Your task to perform on an android device: Go to internet settings Image 0: 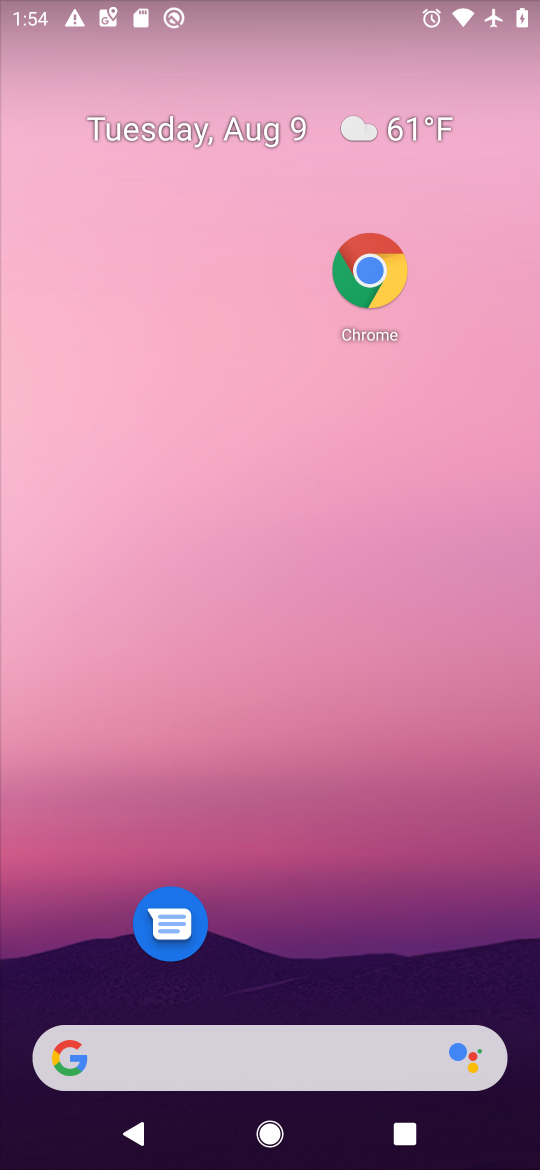
Step 0: drag from (399, 1005) to (322, 127)
Your task to perform on an android device: Go to internet settings Image 1: 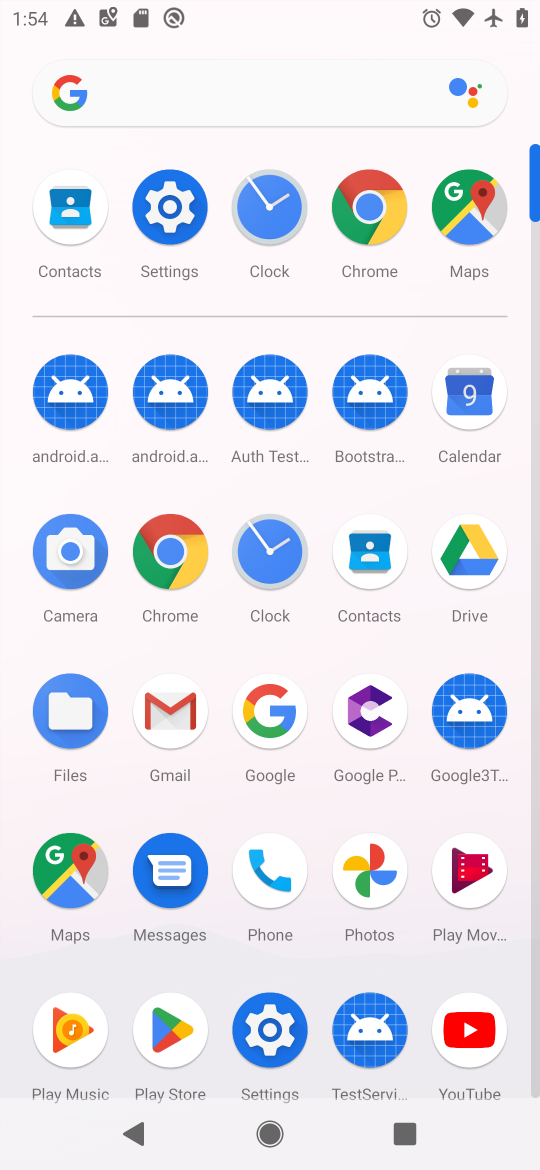
Step 1: click (144, 248)
Your task to perform on an android device: Go to internet settings Image 2: 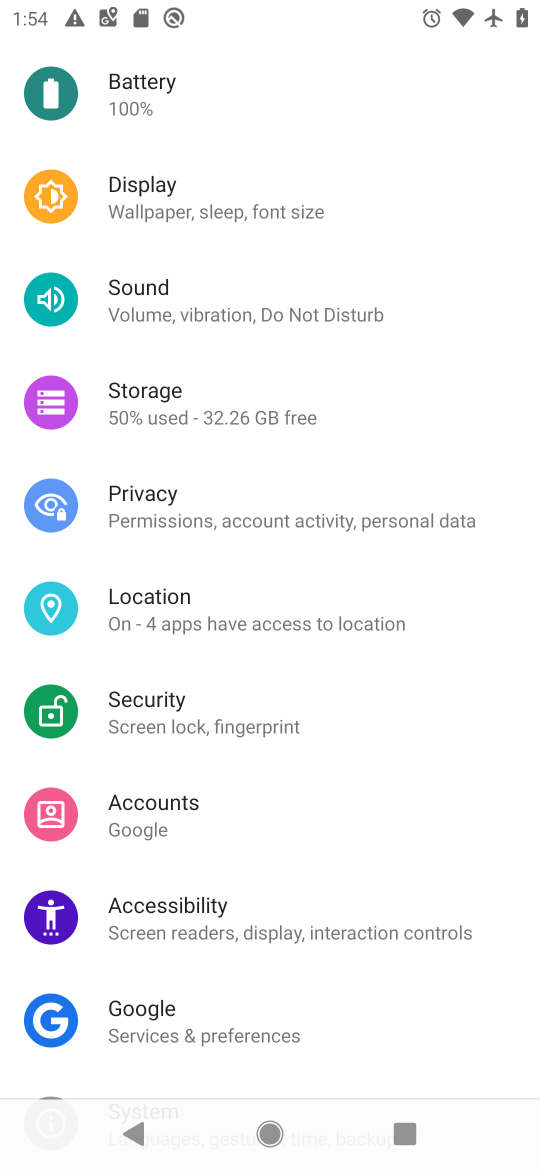
Step 2: drag from (191, 174) to (293, 985)
Your task to perform on an android device: Go to internet settings Image 3: 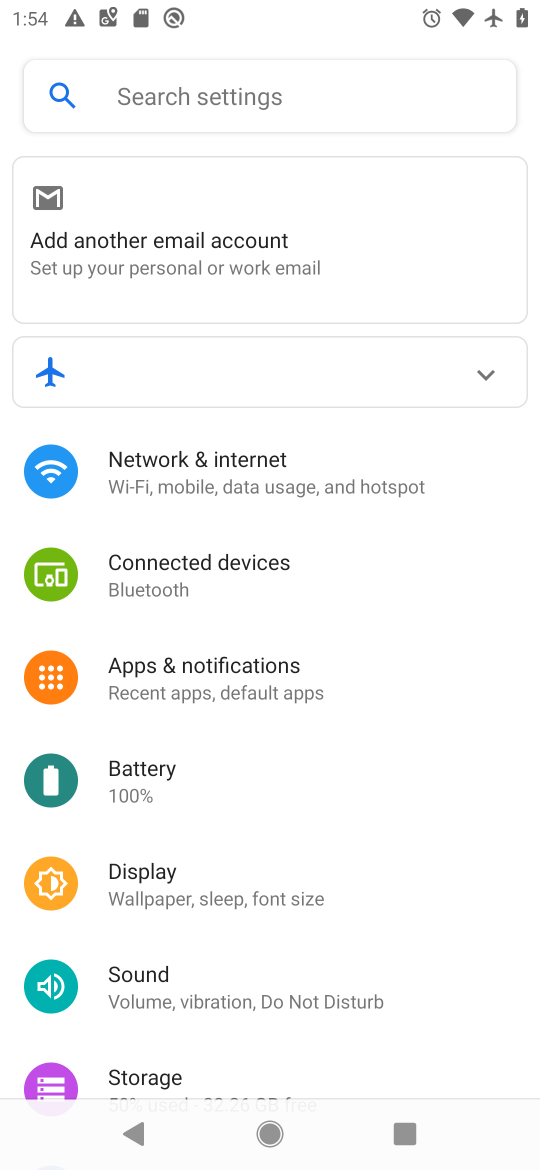
Step 3: click (274, 460)
Your task to perform on an android device: Go to internet settings Image 4: 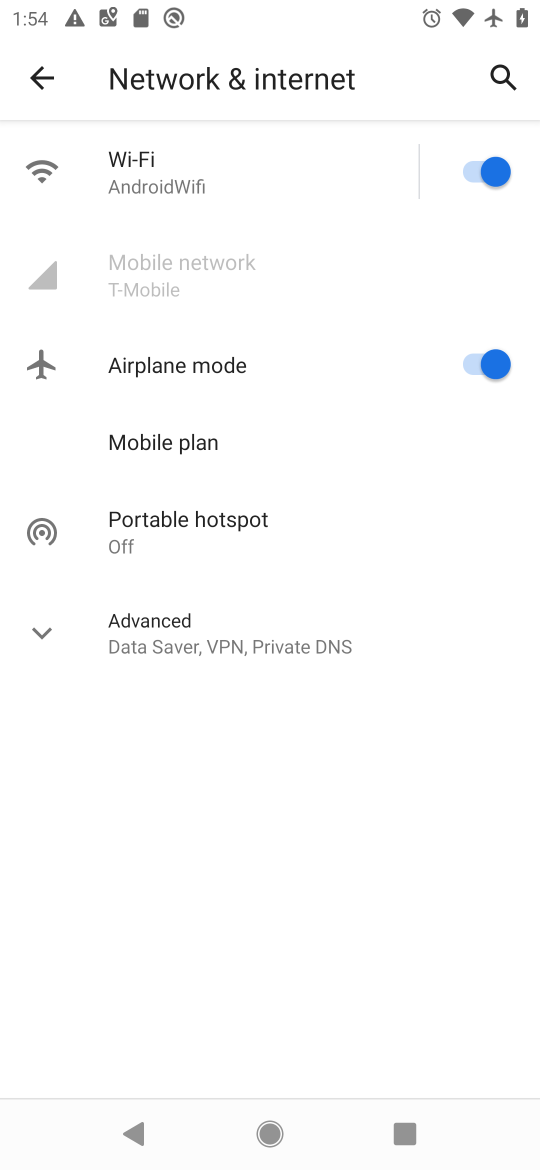
Step 4: task complete